Your task to perform on an android device: change keyboard looks Image 0: 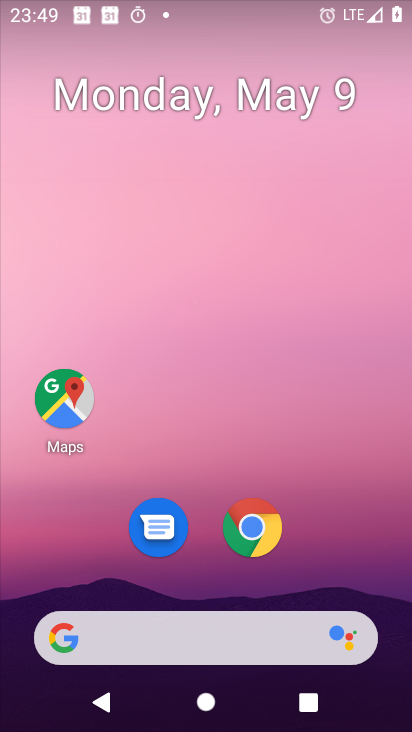
Step 0: drag from (201, 584) to (210, 68)
Your task to perform on an android device: change keyboard looks Image 1: 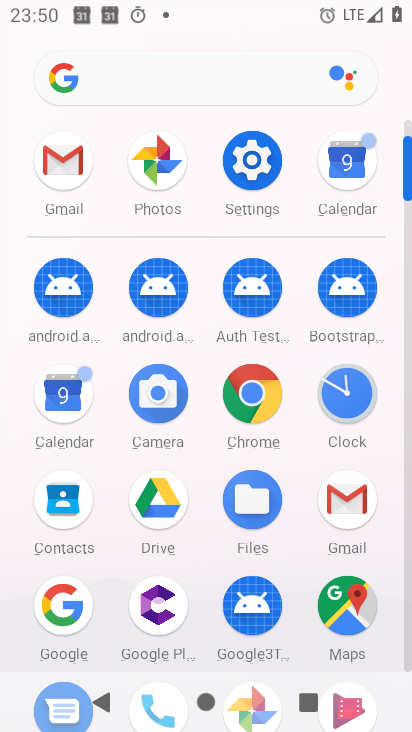
Step 1: click (248, 160)
Your task to perform on an android device: change keyboard looks Image 2: 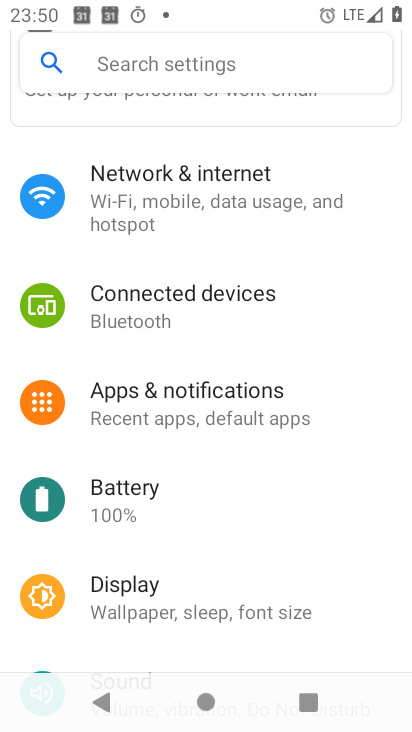
Step 2: drag from (222, 524) to (202, 64)
Your task to perform on an android device: change keyboard looks Image 3: 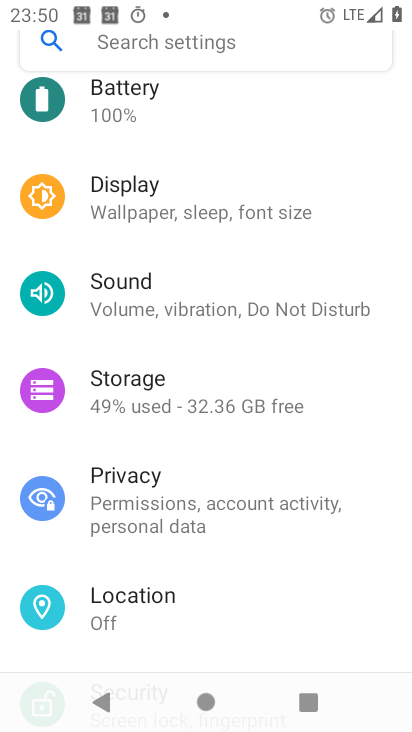
Step 3: drag from (250, 594) to (196, 179)
Your task to perform on an android device: change keyboard looks Image 4: 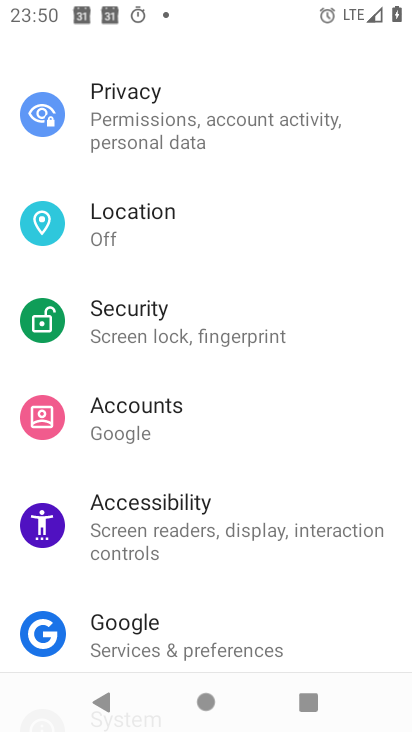
Step 4: drag from (211, 605) to (194, 333)
Your task to perform on an android device: change keyboard looks Image 5: 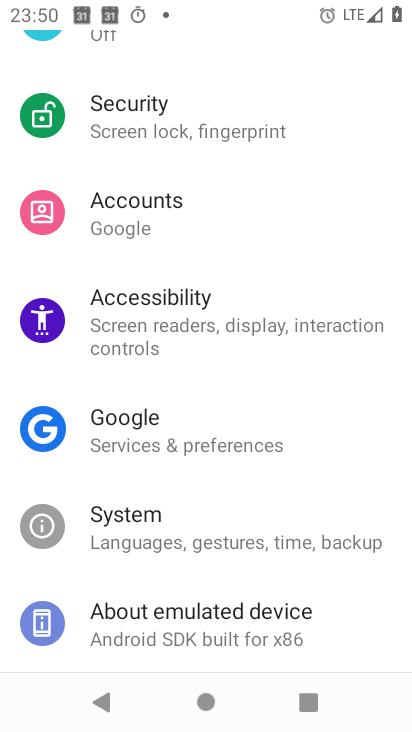
Step 5: click (162, 524)
Your task to perform on an android device: change keyboard looks Image 6: 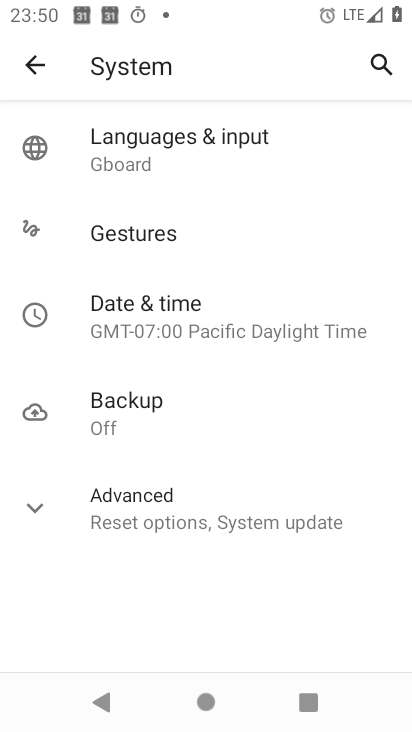
Step 6: click (155, 151)
Your task to perform on an android device: change keyboard looks Image 7: 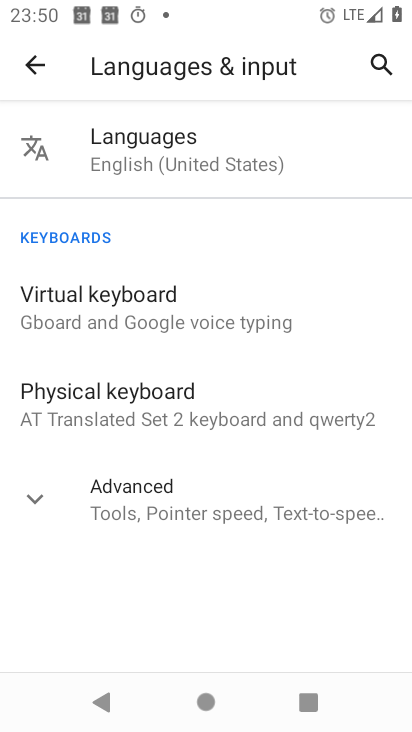
Step 7: click (141, 303)
Your task to perform on an android device: change keyboard looks Image 8: 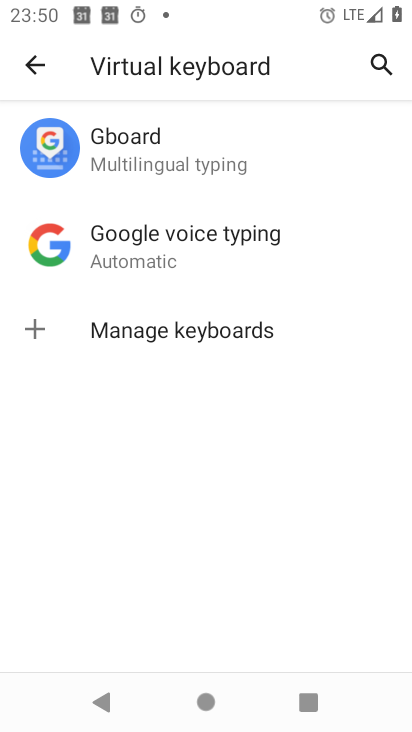
Step 8: click (135, 155)
Your task to perform on an android device: change keyboard looks Image 9: 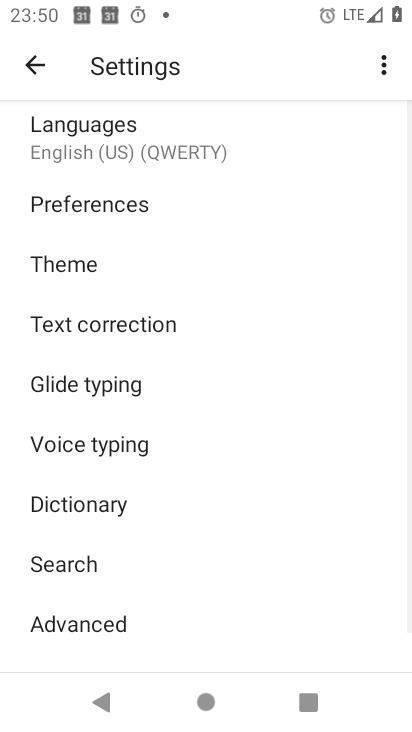
Step 9: click (102, 264)
Your task to perform on an android device: change keyboard looks Image 10: 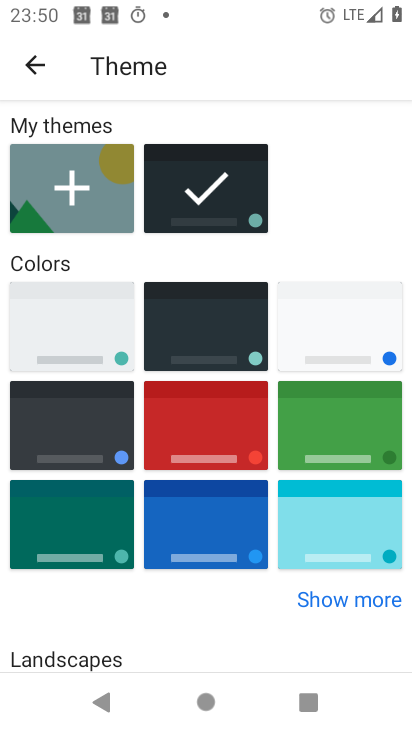
Step 10: click (170, 331)
Your task to perform on an android device: change keyboard looks Image 11: 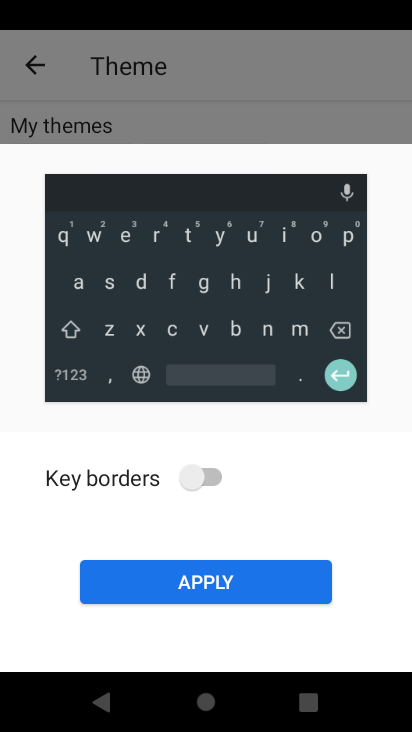
Step 11: click (245, 609)
Your task to perform on an android device: change keyboard looks Image 12: 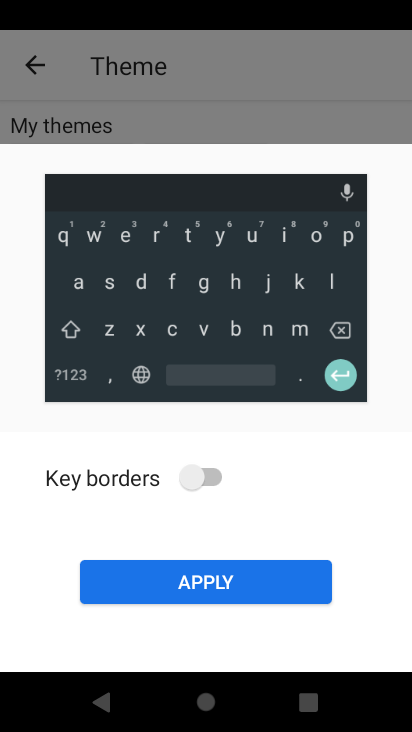
Step 12: click (227, 574)
Your task to perform on an android device: change keyboard looks Image 13: 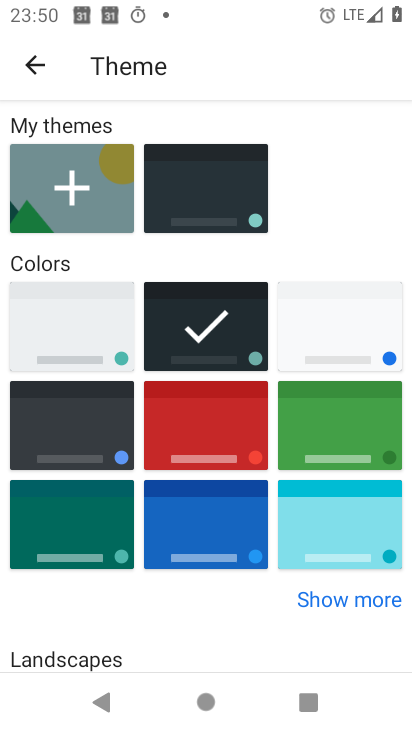
Step 13: task complete